Your task to perform on an android device: change your default location settings in chrome Image 0: 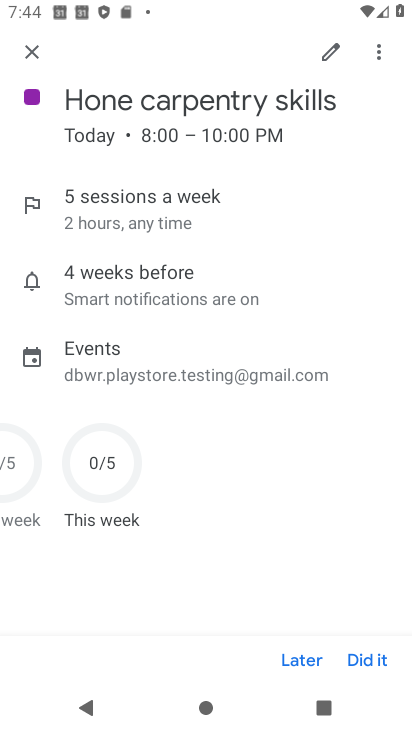
Step 0: press home button
Your task to perform on an android device: change your default location settings in chrome Image 1: 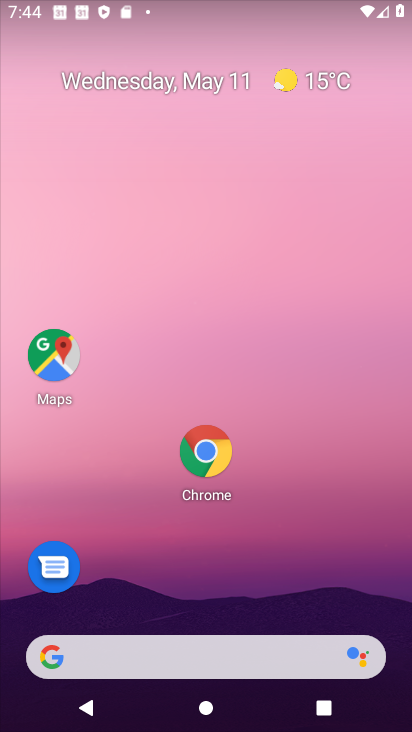
Step 1: drag from (198, 658) to (314, 104)
Your task to perform on an android device: change your default location settings in chrome Image 2: 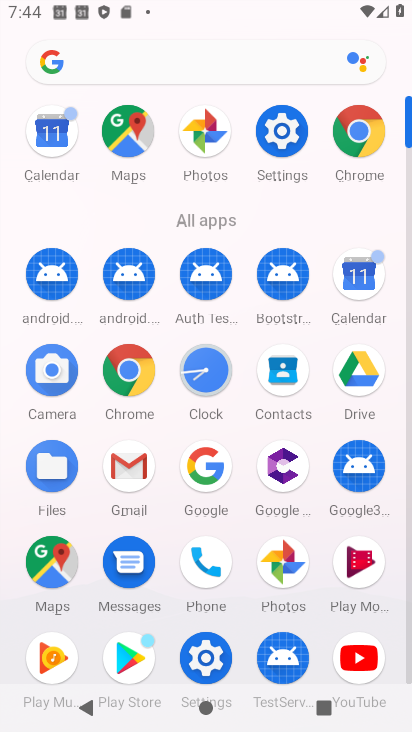
Step 2: click (363, 139)
Your task to perform on an android device: change your default location settings in chrome Image 3: 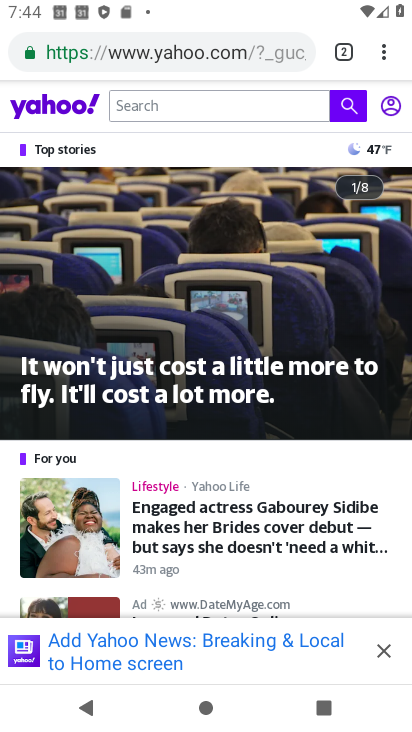
Step 3: drag from (385, 54) to (263, 616)
Your task to perform on an android device: change your default location settings in chrome Image 4: 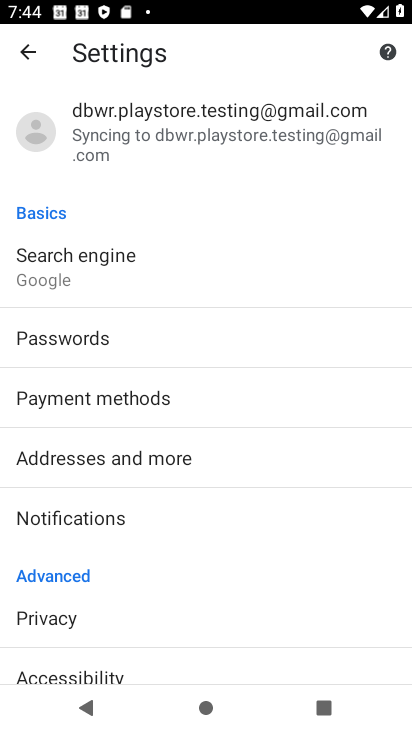
Step 4: drag from (202, 530) to (313, 240)
Your task to perform on an android device: change your default location settings in chrome Image 5: 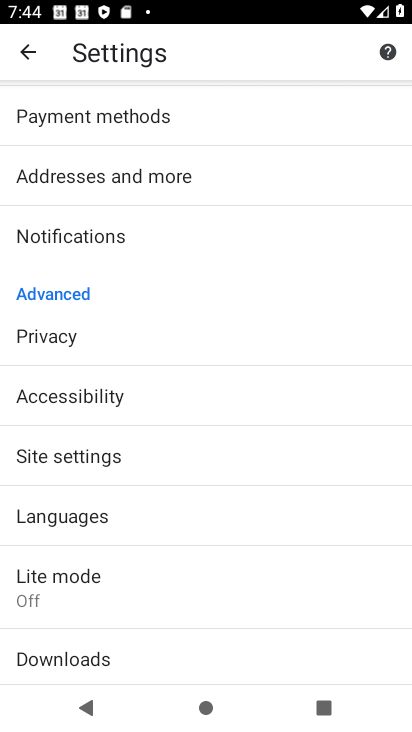
Step 5: click (107, 460)
Your task to perform on an android device: change your default location settings in chrome Image 6: 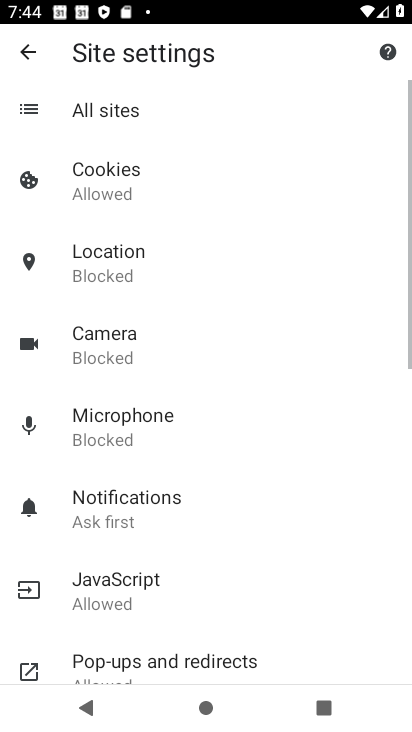
Step 6: click (113, 243)
Your task to perform on an android device: change your default location settings in chrome Image 7: 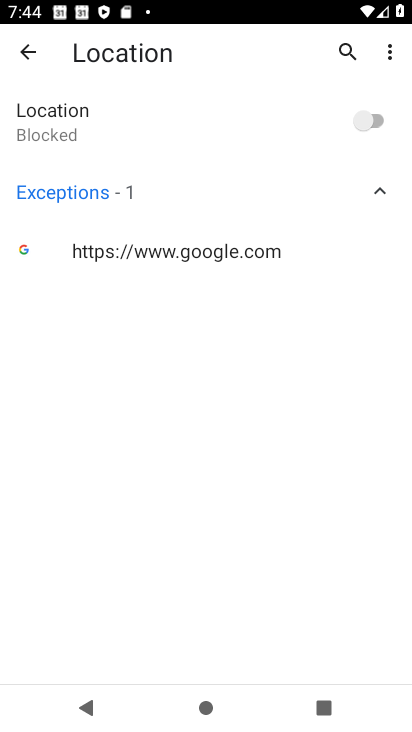
Step 7: click (375, 122)
Your task to perform on an android device: change your default location settings in chrome Image 8: 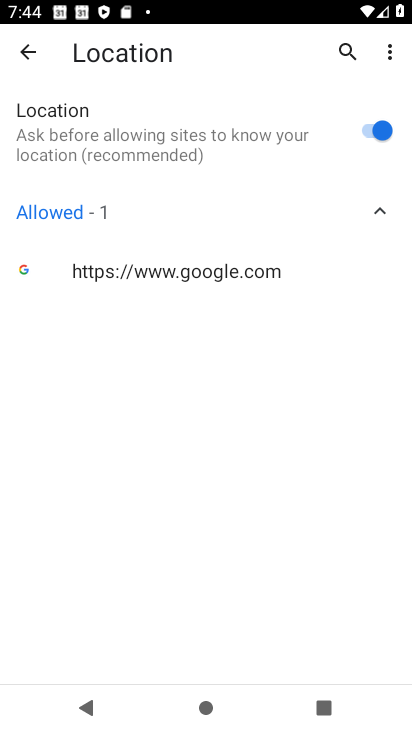
Step 8: task complete